Your task to perform on an android device: Is it going to rain this weekend? Image 0: 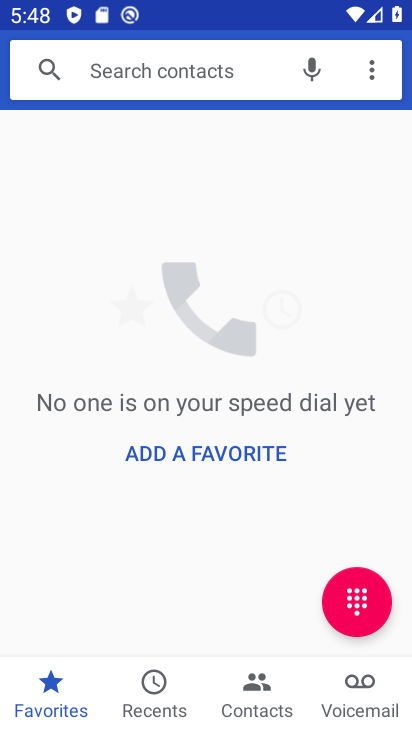
Step 0: press back button
Your task to perform on an android device: Is it going to rain this weekend? Image 1: 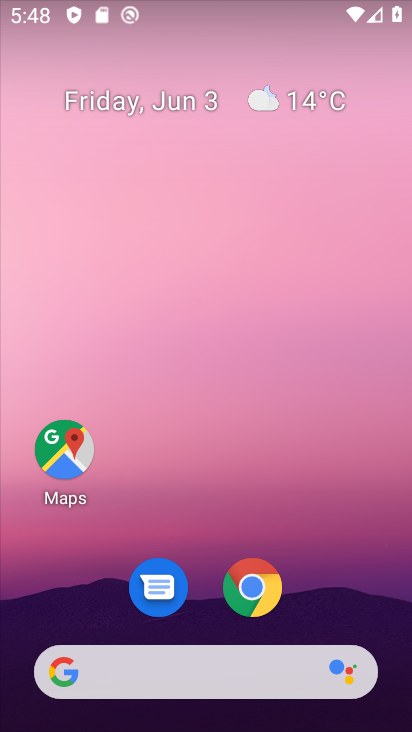
Step 1: drag from (325, 501) to (209, 42)
Your task to perform on an android device: Is it going to rain this weekend? Image 2: 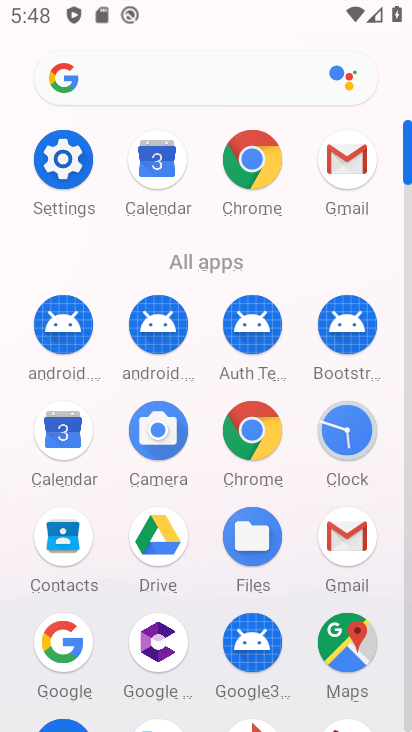
Step 2: drag from (2, 559) to (10, 225)
Your task to perform on an android device: Is it going to rain this weekend? Image 3: 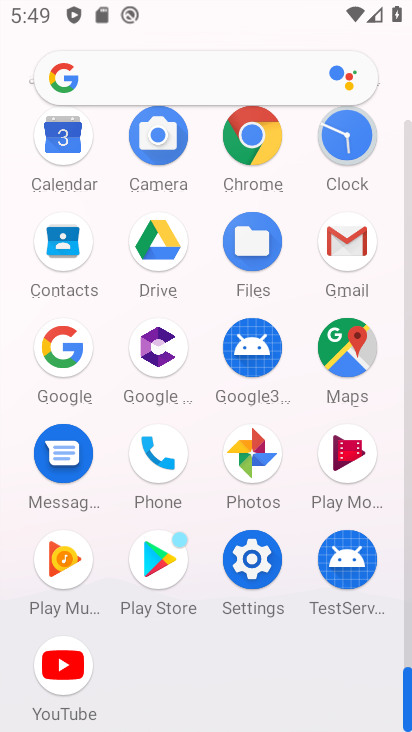
Step 3: drag from (14, 587) to (8, 284)
Your task to perform on an android device: Is it going to rain this weekend? Image 4: 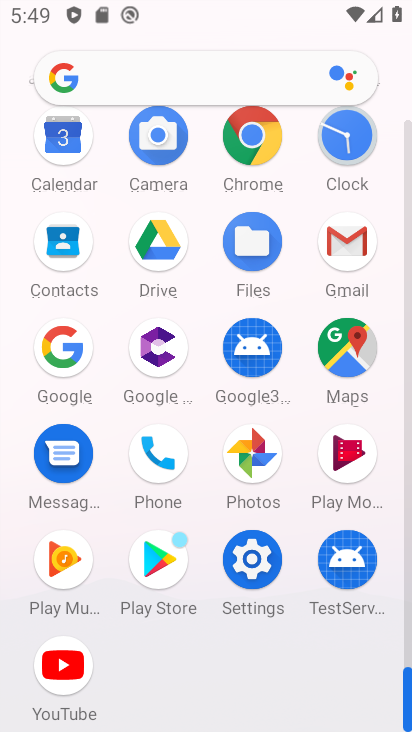
Step 4: click (249, 136)
Your task to perform on an android device: Is it going to rain this weekend? Image 5: 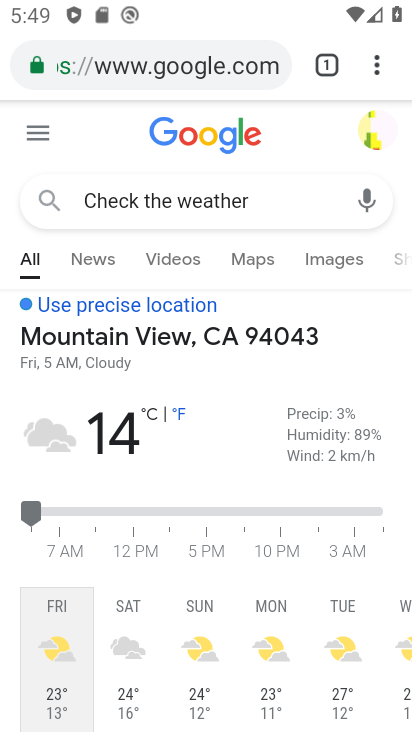
Step 5: click (141, 65)
Your task to perform on an android device: Is it going to rain this weekend? Image 6: 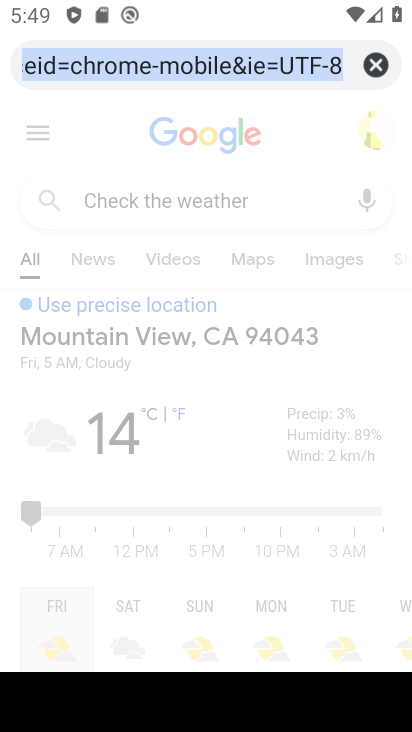
Step 6: click (370, 64)
Your task to perform on an android device: Is it going to rain this weekend? Image 7: 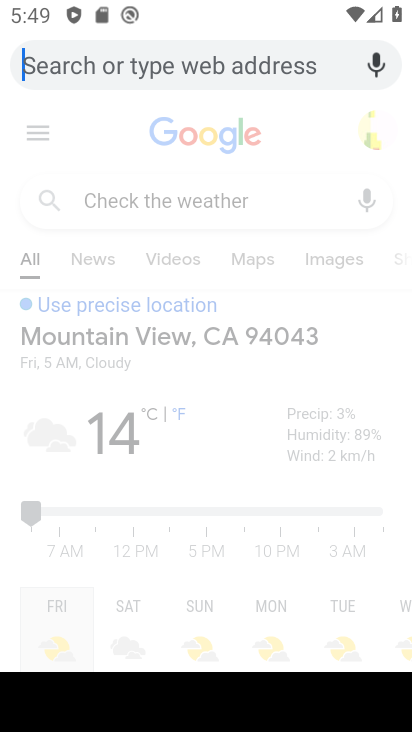
Step 7: type "Is it going to rain this weekend?"
Your task to perform on an android device: Is it going to rain this weekend? Image 8: 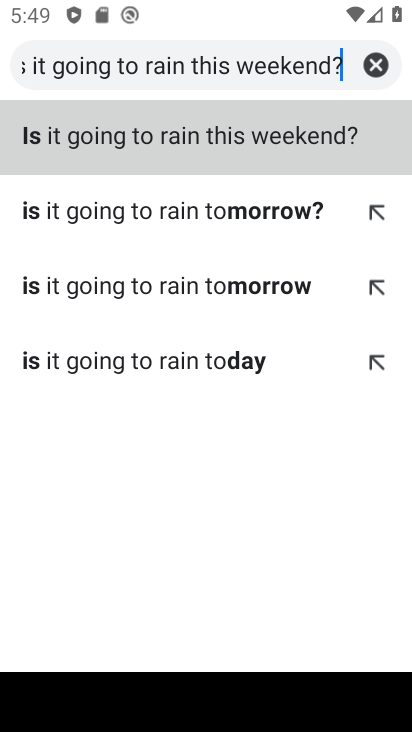
Step 8: type ""
Your task to perform on an android device: Is it going to rain this weekend? Image 9: 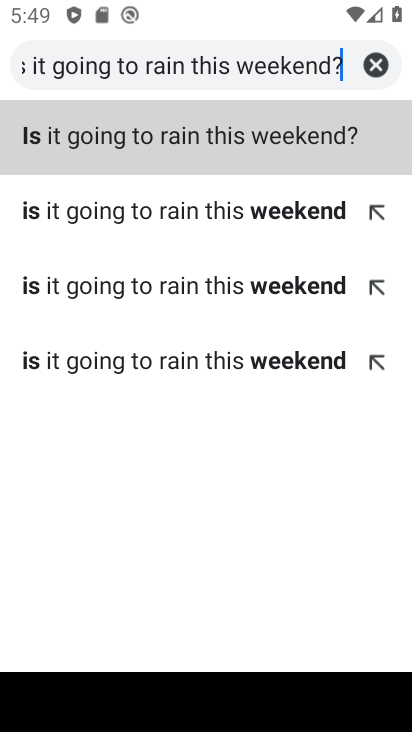
Step 9: click (166, 138)
Your task to perform on an android device: Is it going to rain this weekend? Image 10: 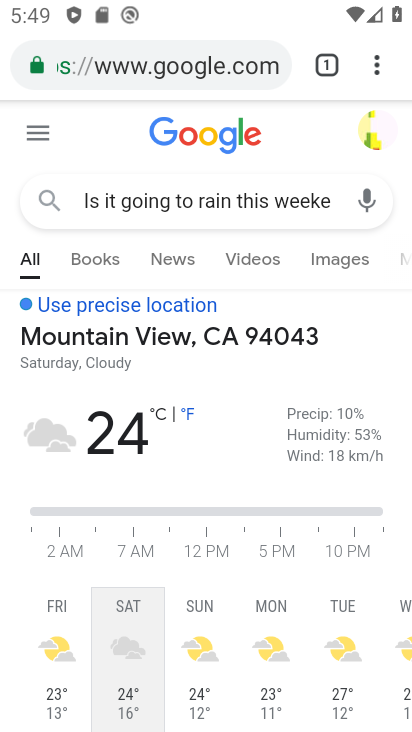
Step 10: task complete